Your task to perform on an android device: What's a good restaurant in San Diego? Image 0: 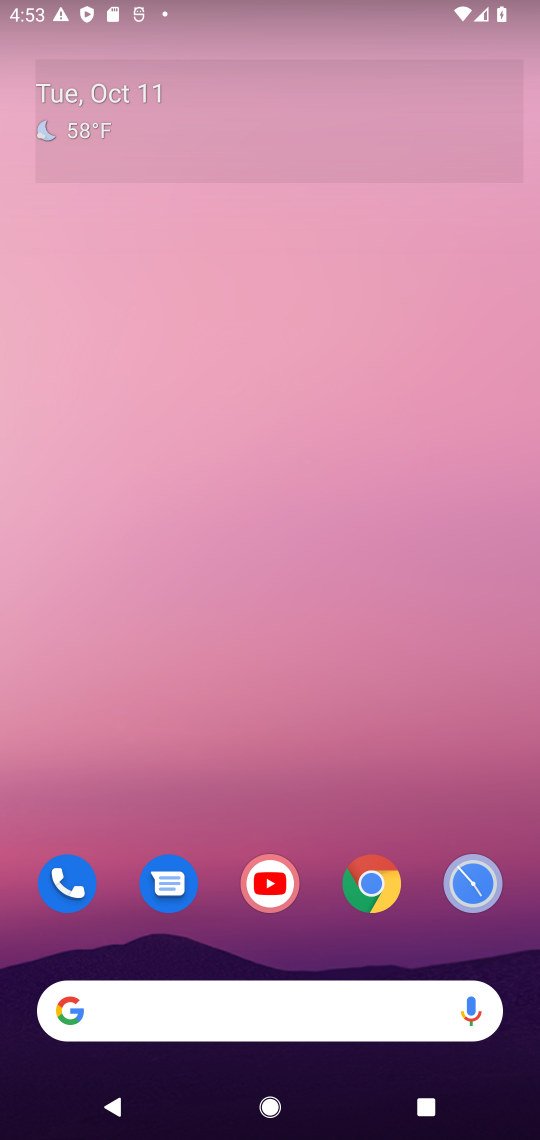
Step 0: drag from (324, 842) to (249, 0)
Your task to perform on an android device: What's a good restaurant in San Diego? Image 1: 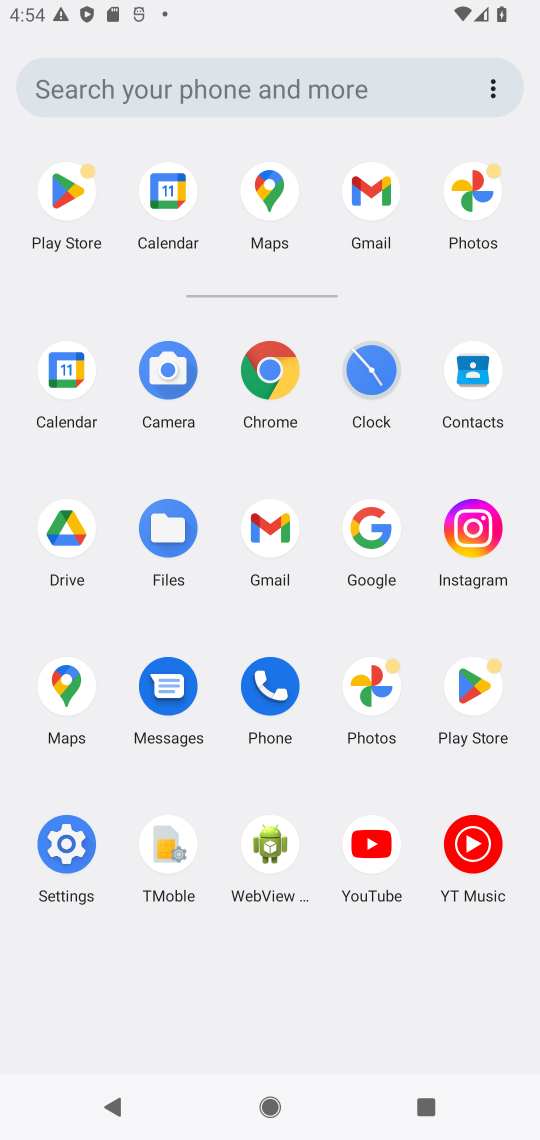
Step 1: click (266, 369)
Your task to perform on an android device: What's a good restaurant in San Diego? Image 2: 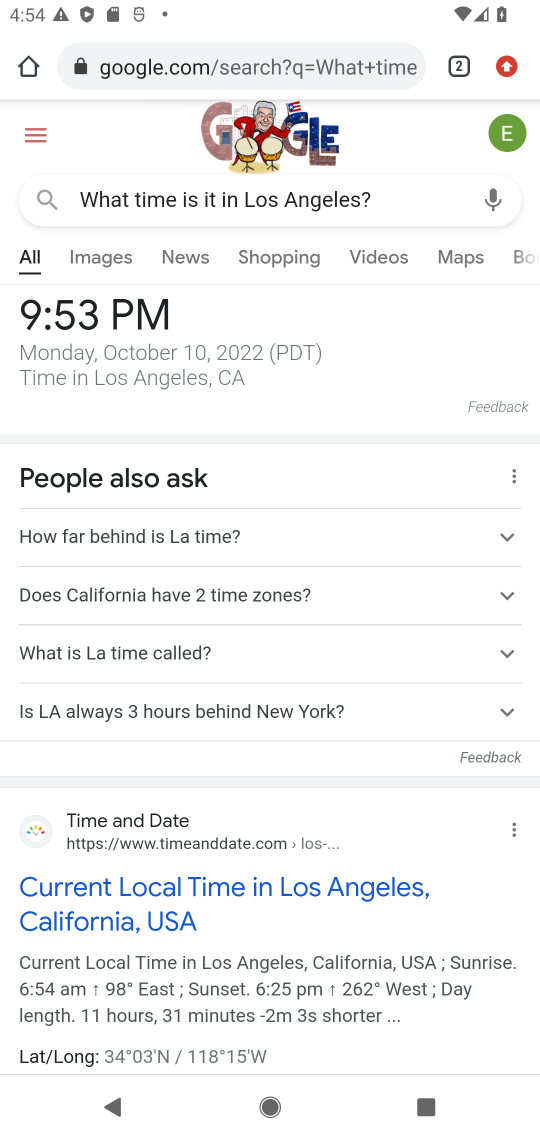
Step 2: click (298, 54)
Your task to perform on an android device: What's a good restaurant in San Diego? Image 3: 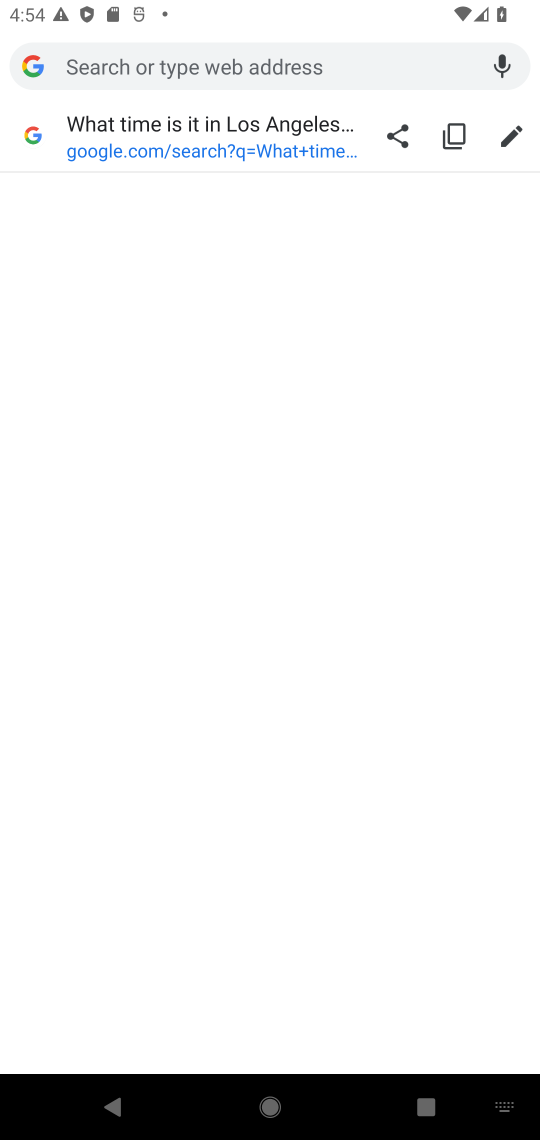
Step 3: type "What's a good restaurant in San Diego?"
Your task to perform on an android device: What's a good restaurant in San Diego? Image 4: 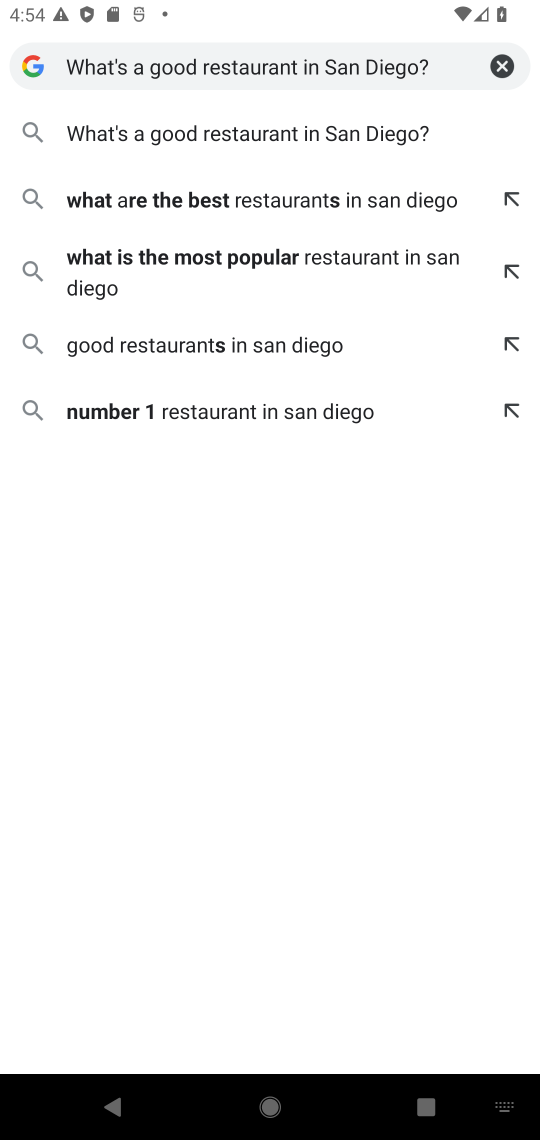
Step 4: press enter
Your task to perform on an android device: What's a good restaurant in San Diego? Image 5: 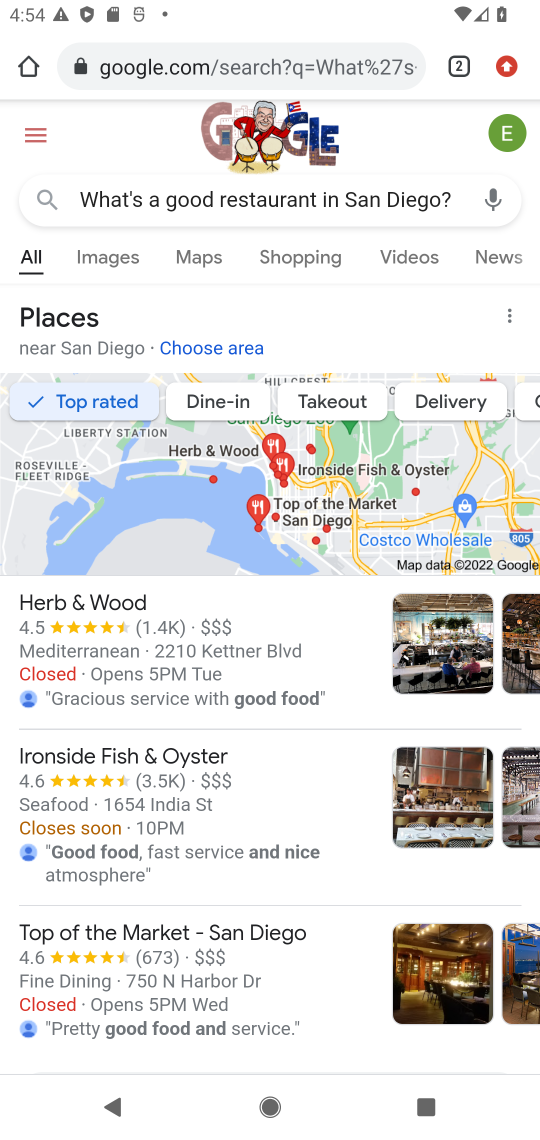
Step 5: task complete